Your task to perform on an android device: Find coffee shops on Maps Image 0: 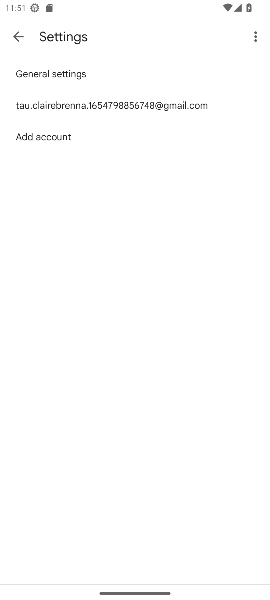
Step 0: press home button
Your task to perform on an android device: Find coffee shops on Maps Image 1: 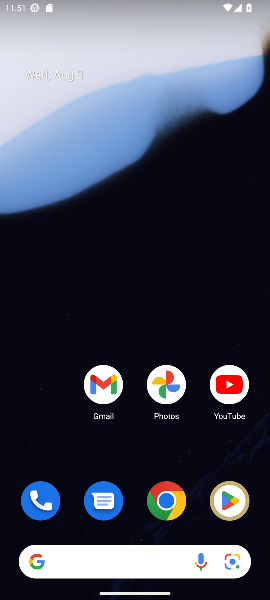
Step 1: drag from (127, 456) to (81, 48)
Your task to perform on an android device: Find coffee shops on Maps Image 2: 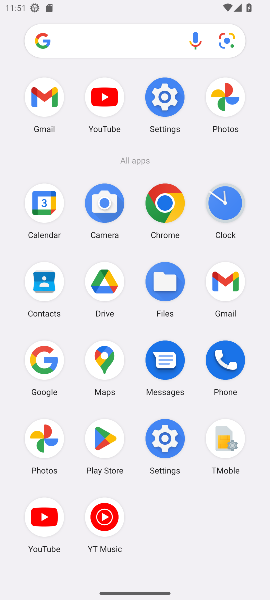
Step 2: click (102, 364)
Your task to perform on an android device: Find coffee shops on Maps Image 3: 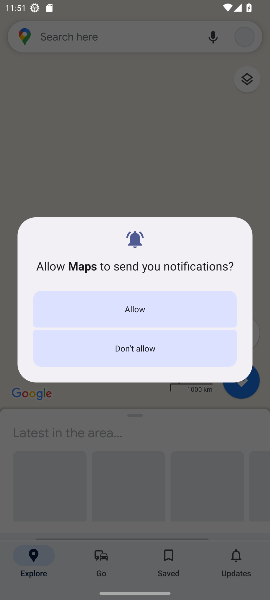
Step 3: click (134, 36)
Your task to perform on an android device: Find coffee shops on Maps Image 4: 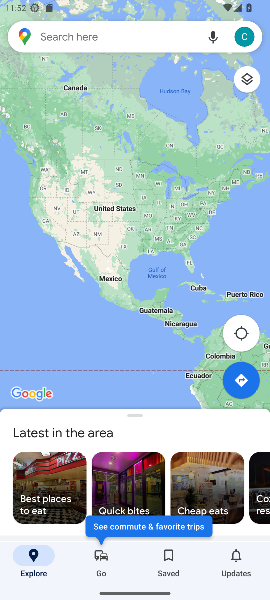
Step 4: click (104, 37)
Your task to perform on an android device: Find coffee shops on Maps Image 5: 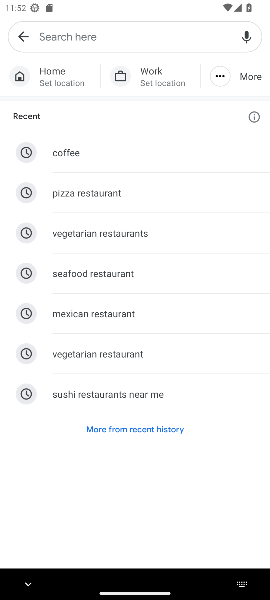
Step 5: type "coffee shops"
Your task to perform on an android device: Find coffee shops on Maps Image 6: 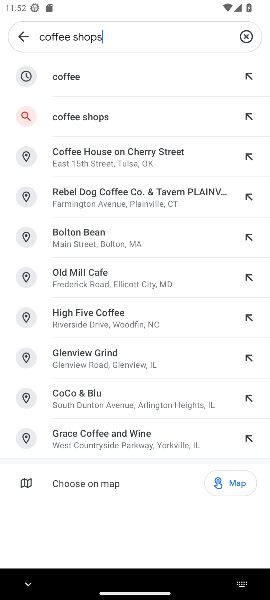
Step 6: click (111, 126)
Your task to perform on an android device: Find coffee shops on Maps Image 7: 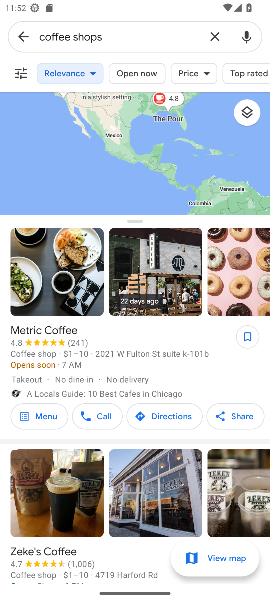
Step 7: task complete